Your task to perform on an android device: Open settings Image 0: 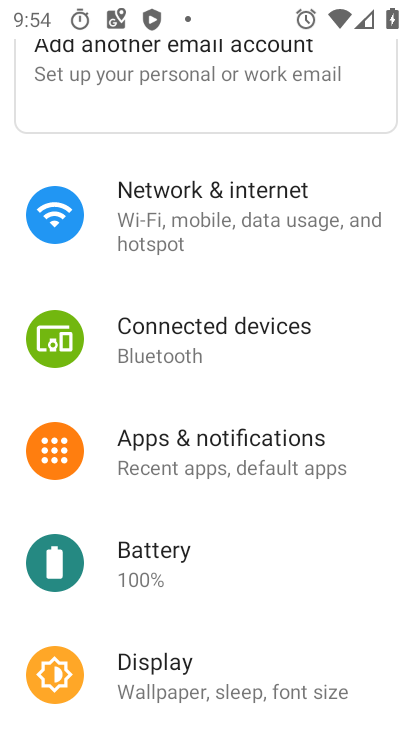
Step 0: press home button
Your task to perform on an android device: Open settings Image 1: 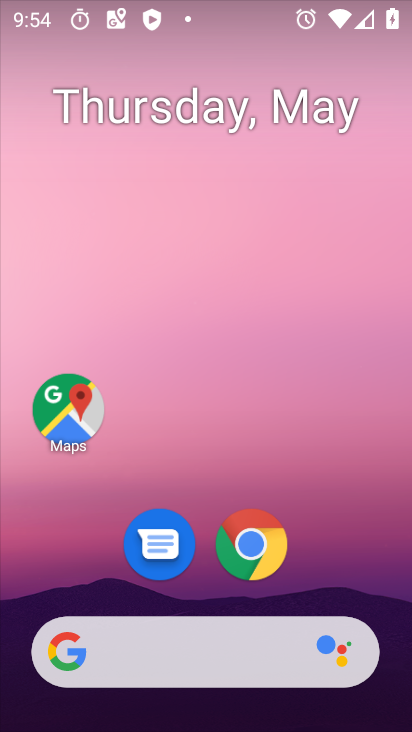
Step 1: drag from (194, 603) to (202, 279)
Your task to perform on an android device: Open settings Image 2: 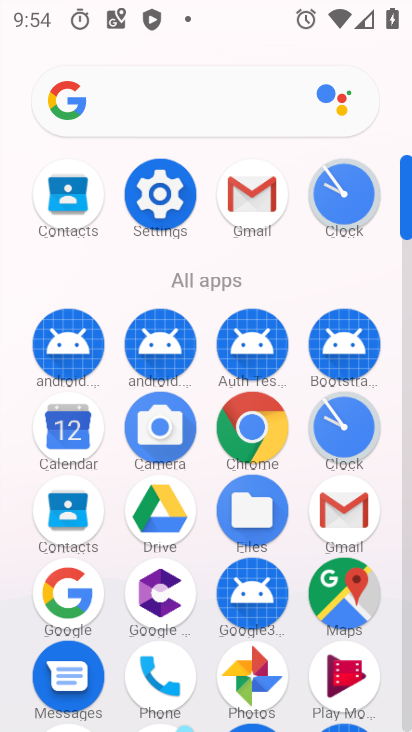
Step 2: click (150, 198)
Your task to perform on an android device: Open settings Image 3: 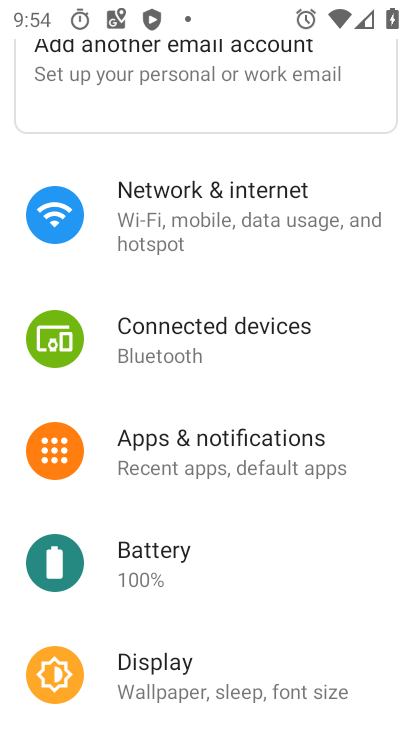
Step 3: task complete